Your task to perform on an android device: search for starred emails in the gmail app Image 0: 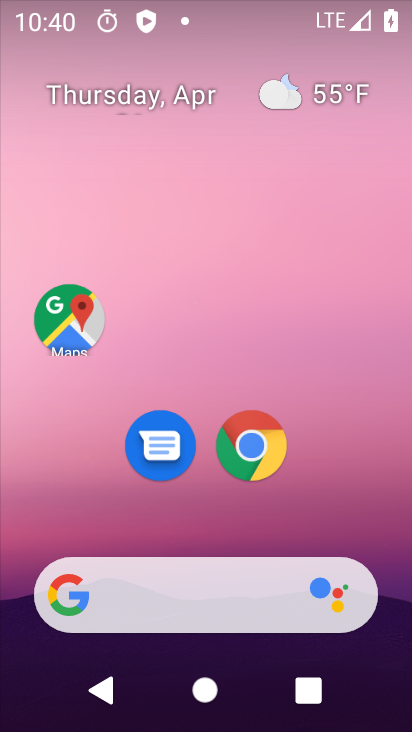
Step 0: drag from (379, 526) to (377, 3)
Your task to perform on an android device: search for starred emails in the gmail app Image 1: 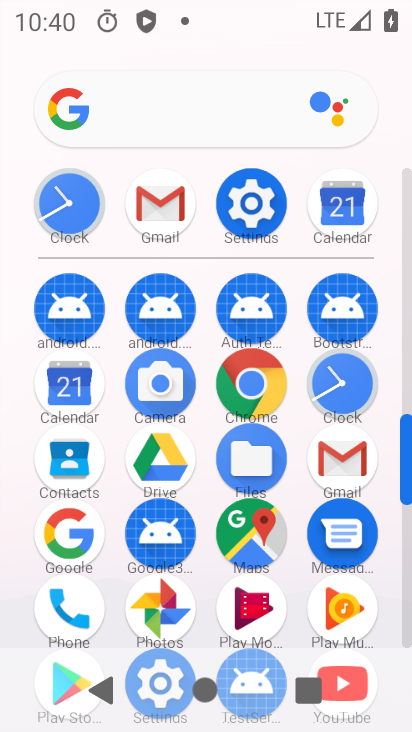
Step 1: click (156, 210)
Your task to perform on an android device: search for starred emails in the gmail app Image 2: 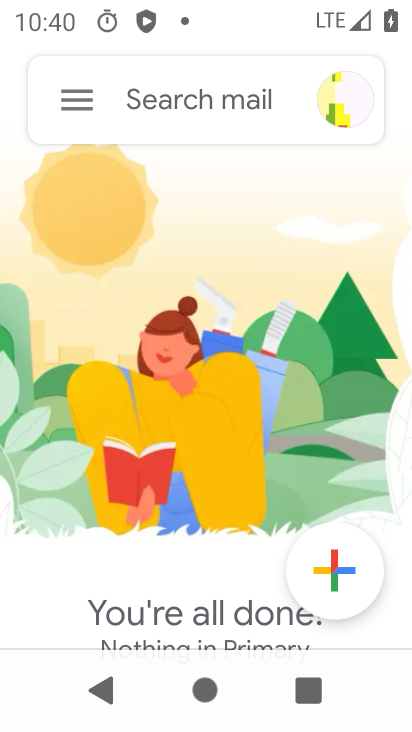
Step 2: click (82, 100)
Your task to perform on an android device: search for starred emails in the gmail app Image 3: 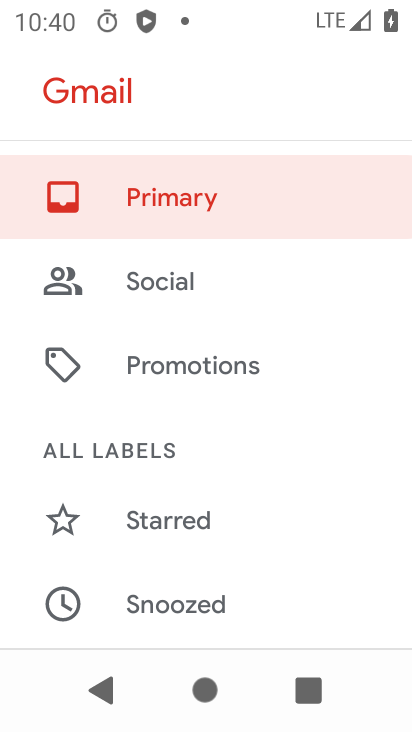
Step 3: click (191, 516)
Your task to perform on an android device: search for starred emails in the gmail app Image 4: 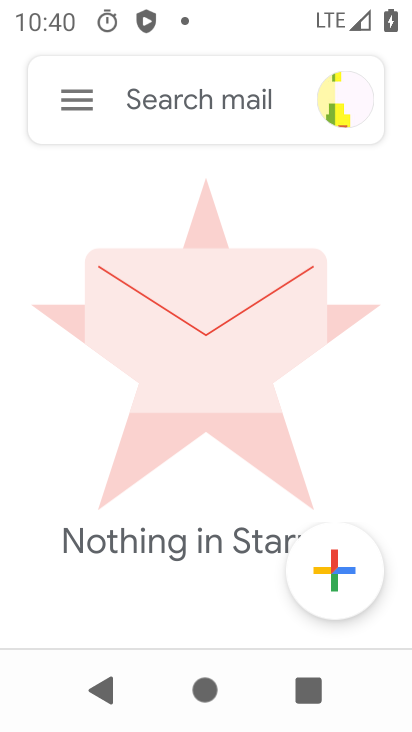
Step 4: task complete